Your task to perform on an android device: Go to Android settings Image 0: 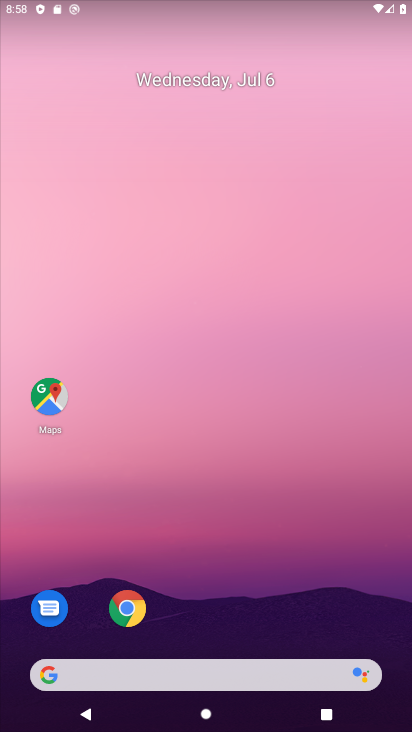
Step 0: drag from (287, 627) to (171, 105)
Your task to perform on an android device: Go to Android settings Image 1: 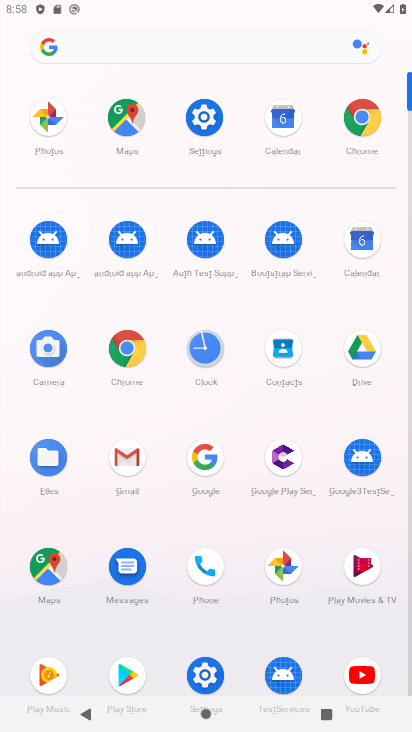
Step 1: click (221, 118)
Your task to perform on an android device: Go to Android settings Image 2: 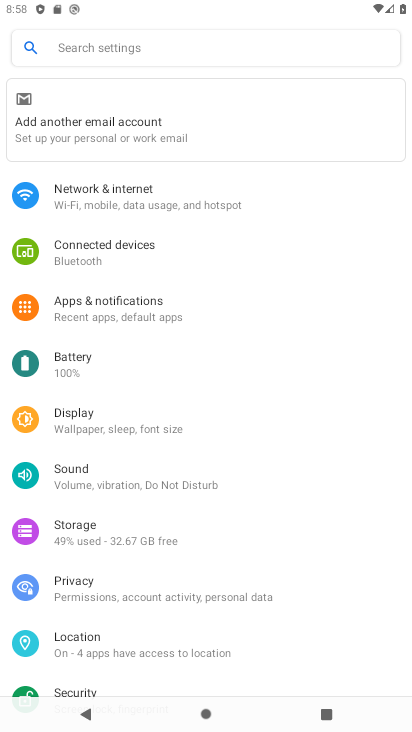
Step 2: task complete